Your task to perform on an android device: What time is it in San Francisco? Image 0: 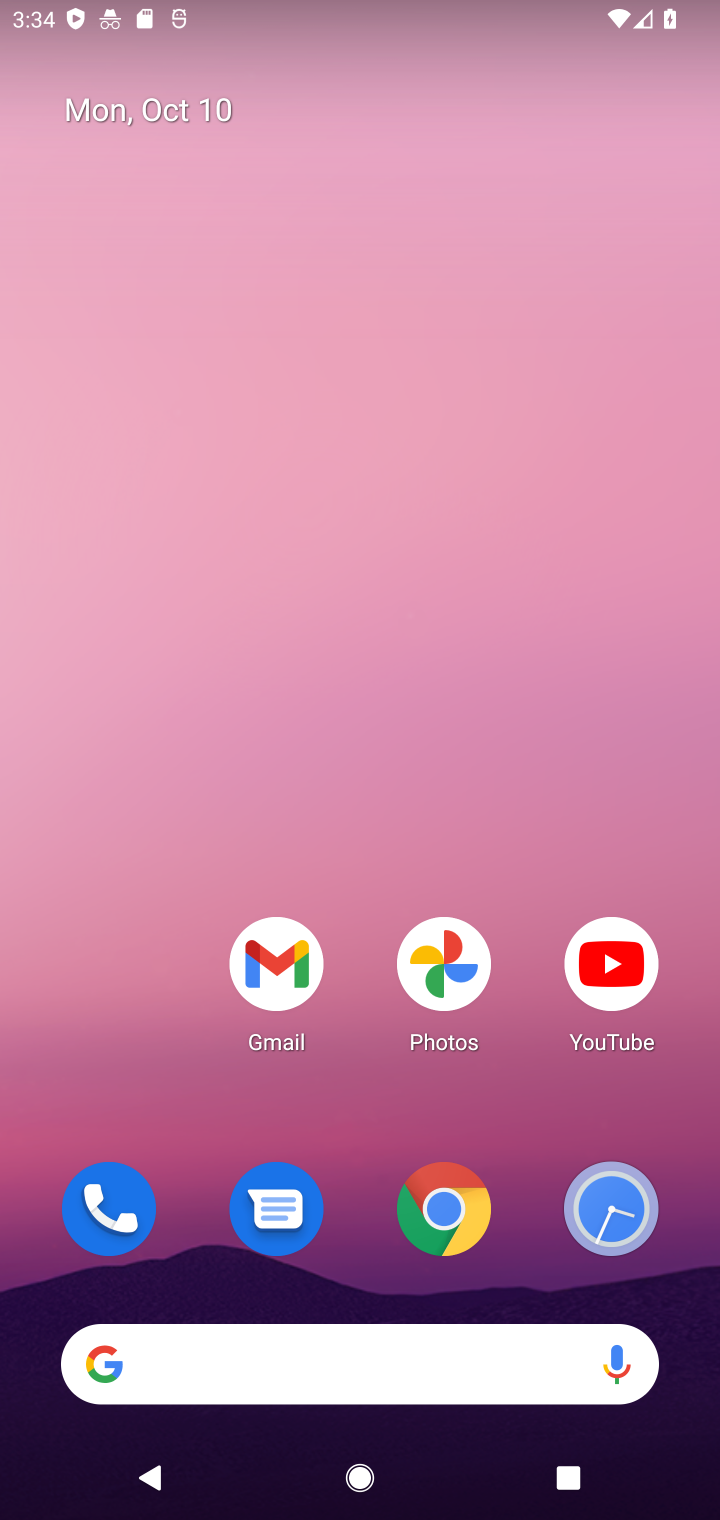
Step 0: click (456, 1198)
Your task to perform on an android device: What time is it in San Francisco? Image 1: 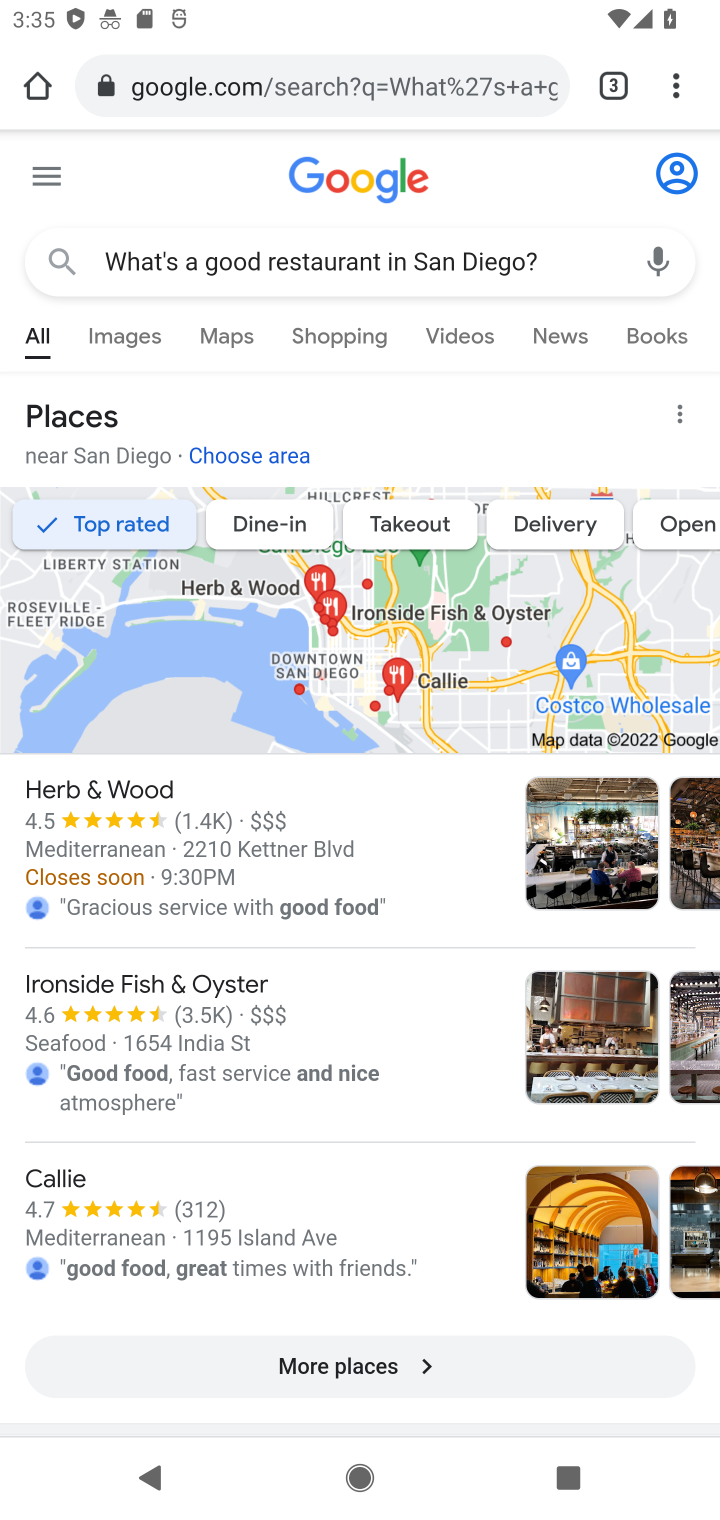
Step 1: click (548, 269)
Your task to perform on an android device: What time is it in San Francisco? Image 2: 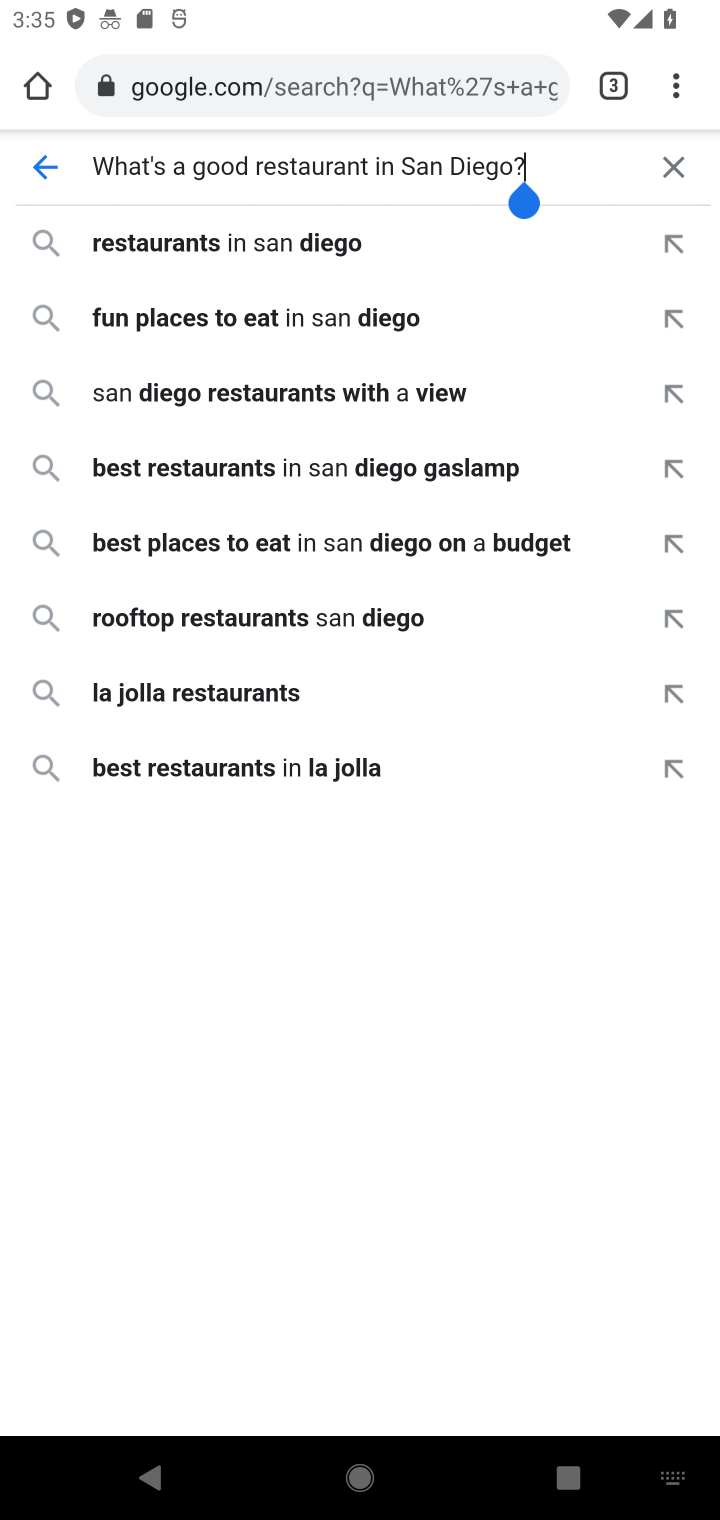
Step 2: click (669, 173)
Your task to perform on an android device: What time is it in San Francisco? Image 3: 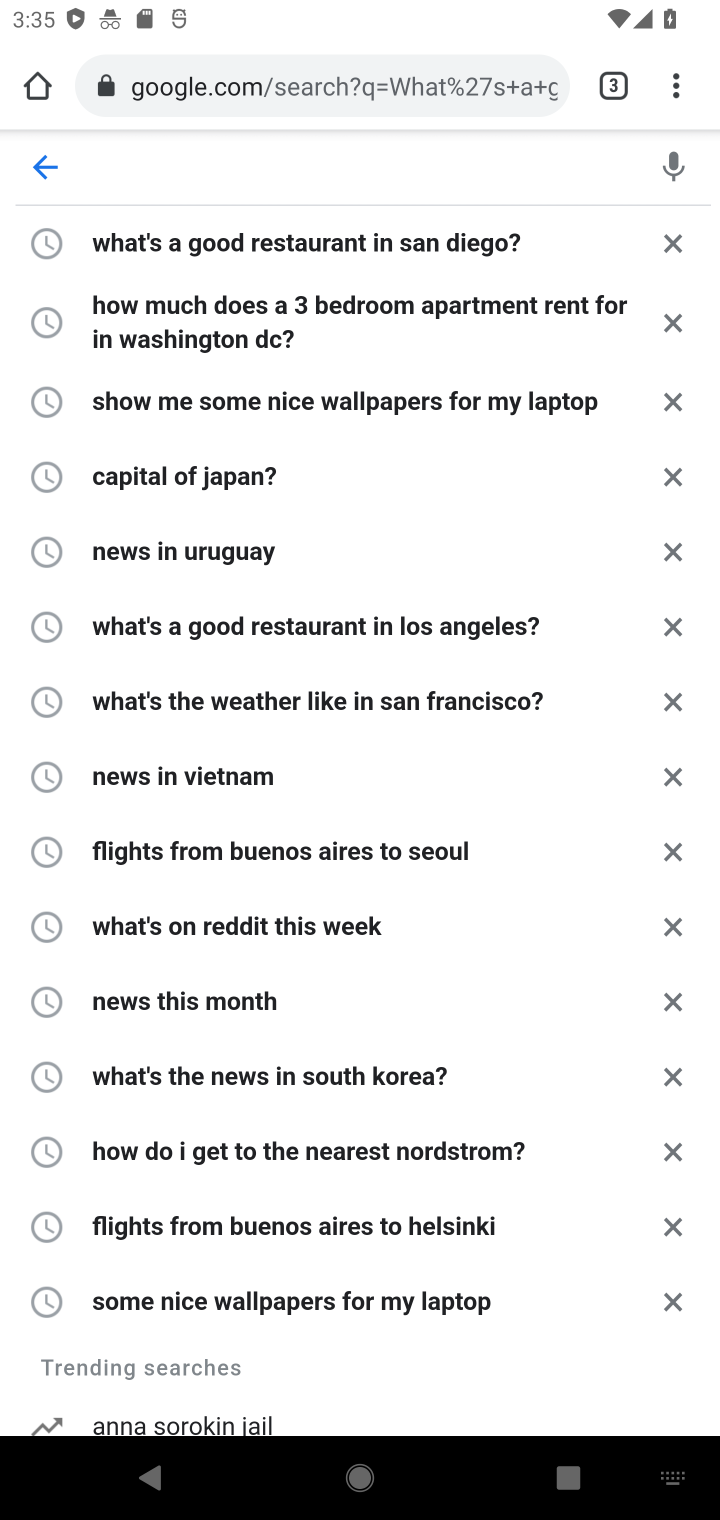
Step 3: type "What time is it in San Francisco?"
Your task to perform on an android device: What time is it in San Francisco? Image 4: 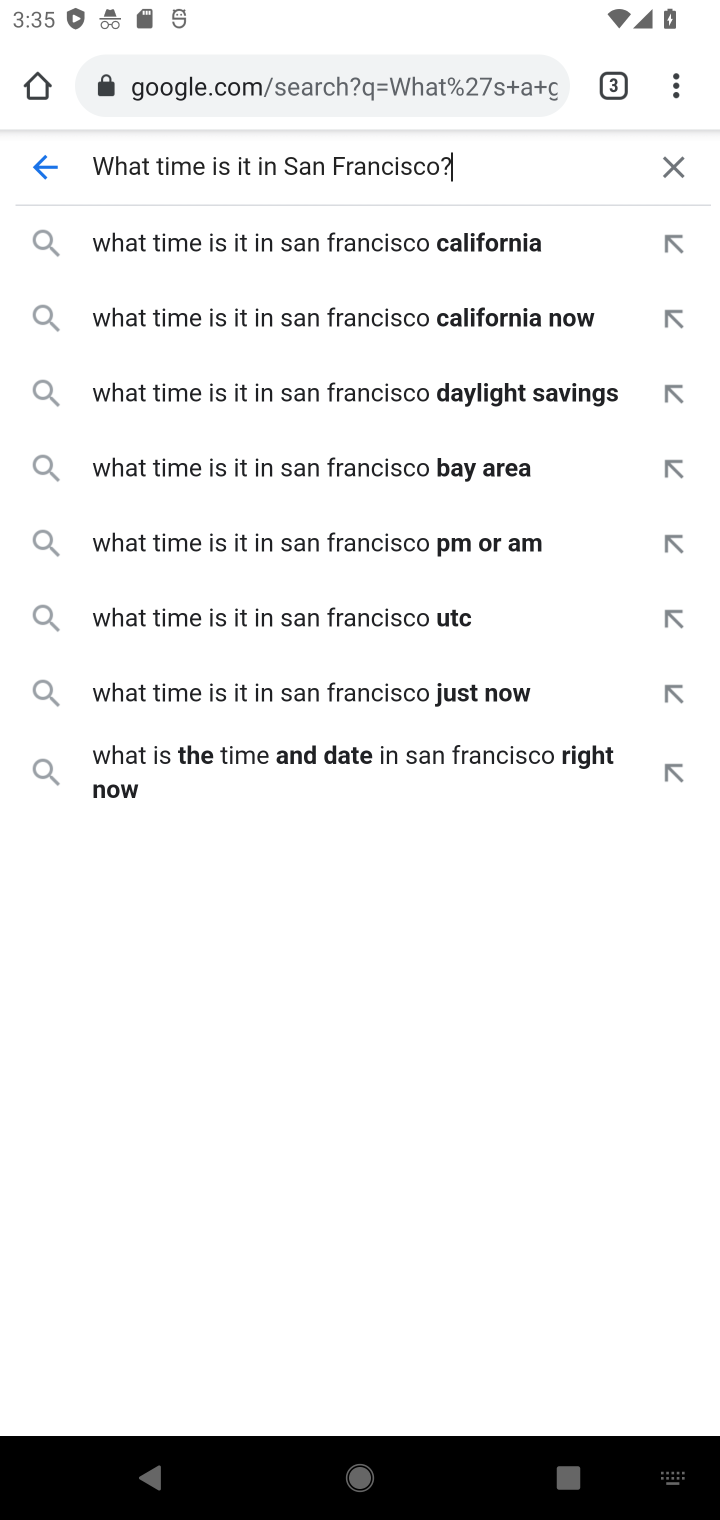
Step 4: press enter
Your task to perform on an android device: What time is it in San Francisco? Image 5: 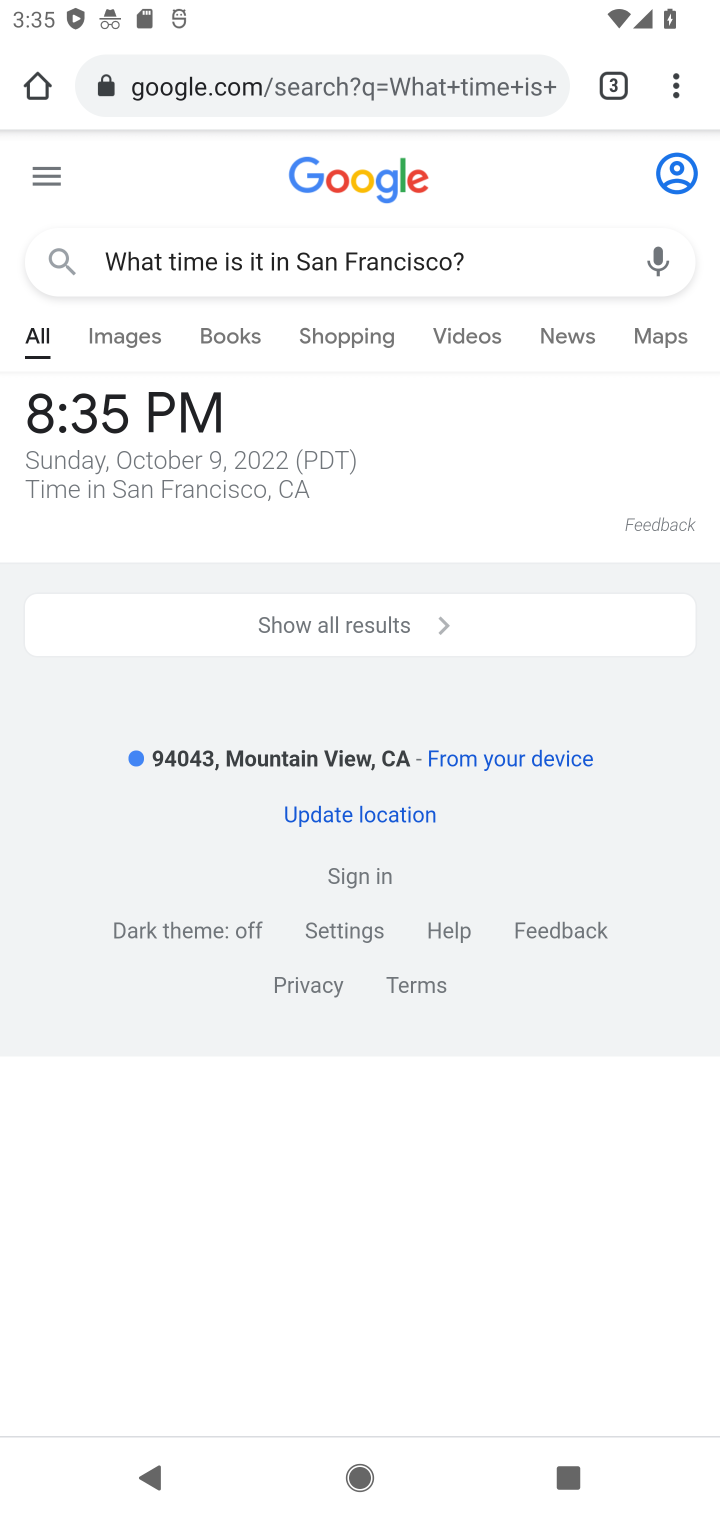
Step 5: task complete